Your task to perform on an android device: toggle translation in the chrome app Image 0: 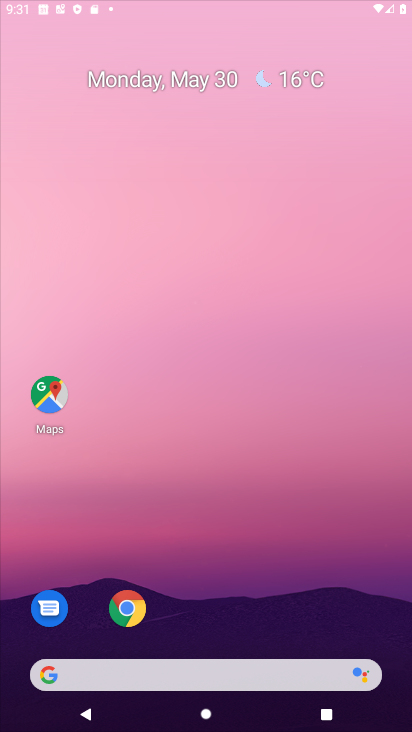
Step 0: click (135, 600)
Your task to perform on an android device: toggle translation in the chrome app Image 1: 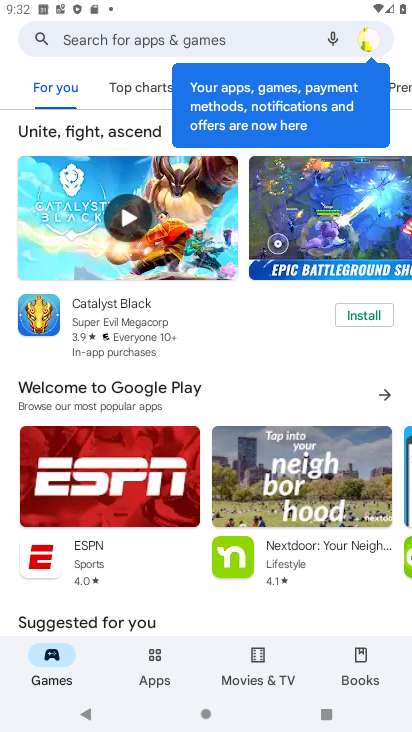
Step 1: click (225, 40)
Your task to perform on an android device: toggle translation in the chrome app Image 2: 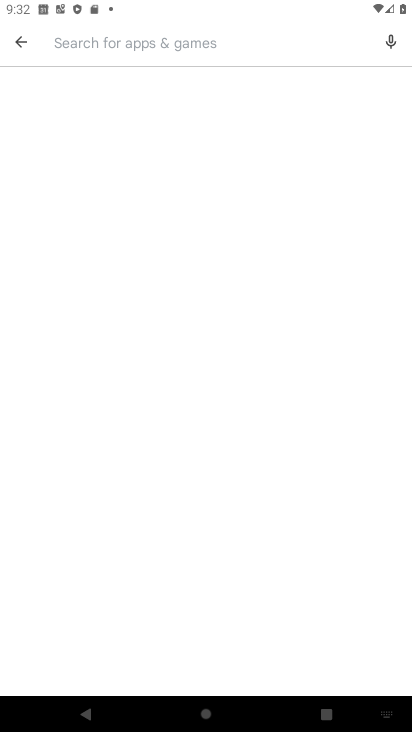
Step 2: press back button
Your task to perform on an android device: toggle translation in the chrome app Image 3: 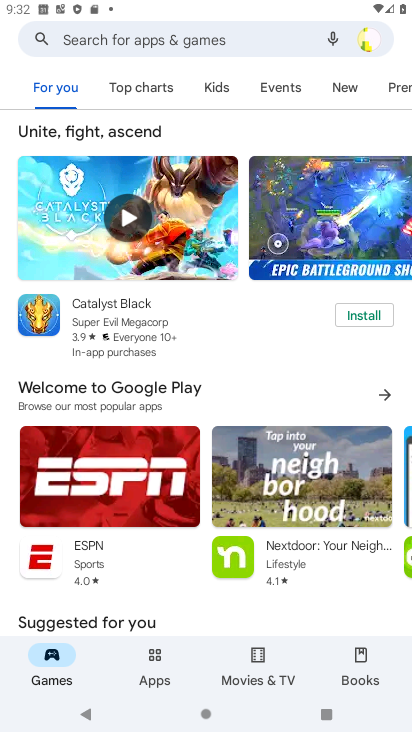
Step 3: click (203, 36)
Your task to perform on an android device: toggle translation in the chrome app Image 4: 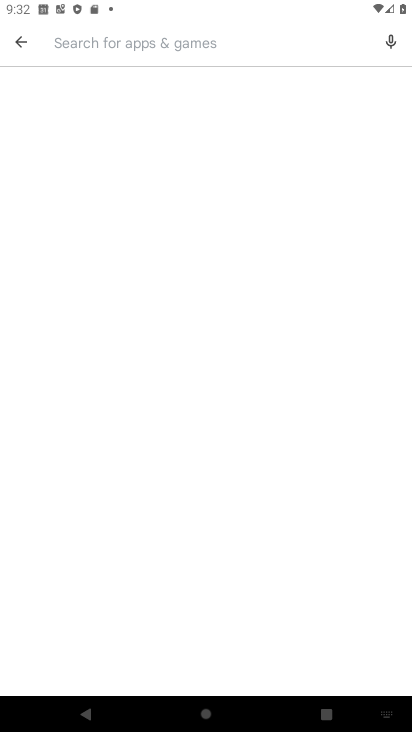
Step 4: press back button
Your task to perform on an android device: toggle translation in the chrome app Image 5: 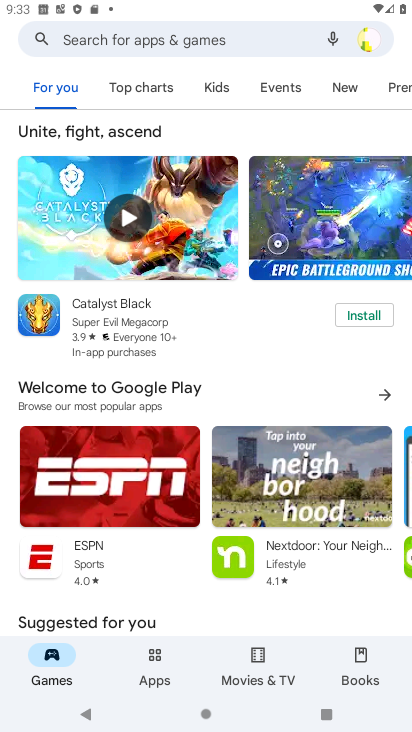
Step 5: press back button
Your task to perform on an android device: toggle translation in the chrome app Image 6: 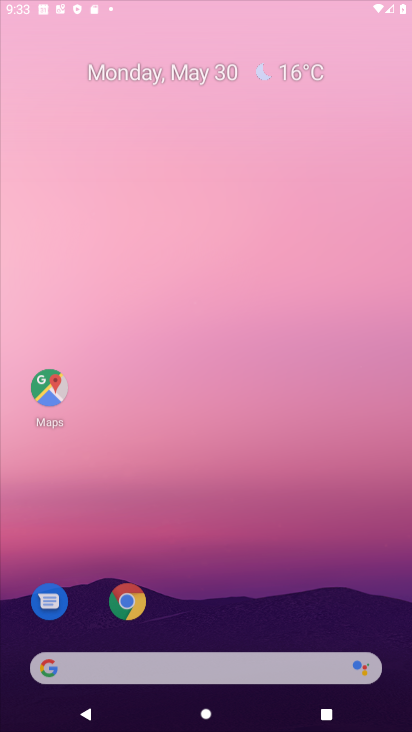
Step 6: press home button
Your task to perform on an android device: toggle translation in the chrome app Image 7: 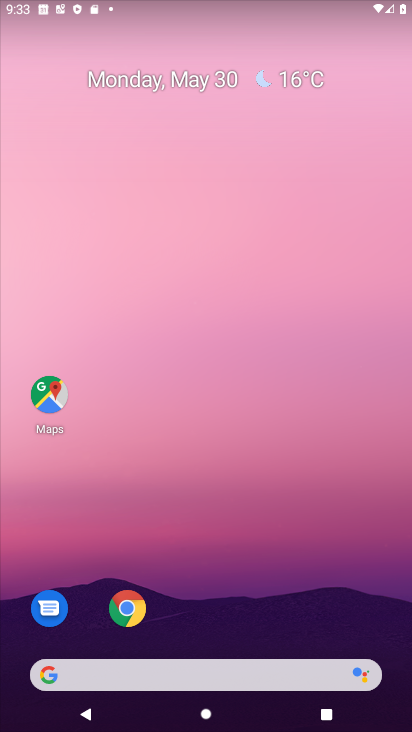
Step 7: drag from (390, 685) to (378, 186)
Your task to perform on an android device: toggle translation in the chrome app Image 8: 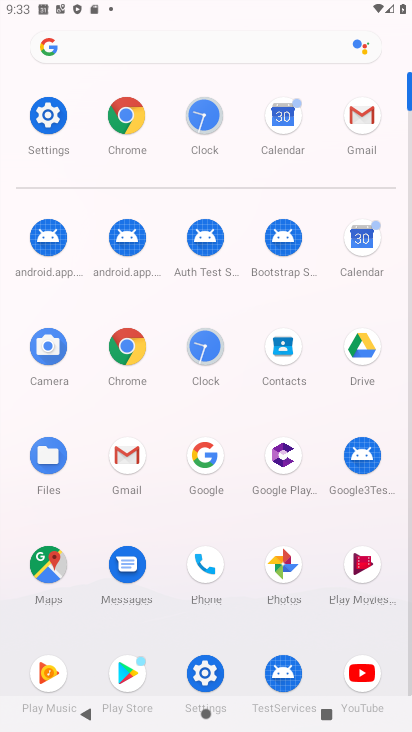
Step 8: click (46, 109)
Your task to perform on an android device: toggle translation in the chrome app Image 9: 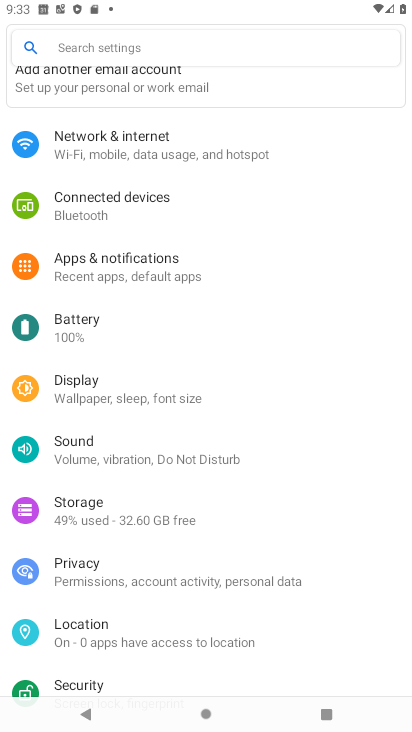
Step 9: drag from (266, 664) to (309, 387)
Your task to perform on an android device: toggle translation in the chrome app Image 10: 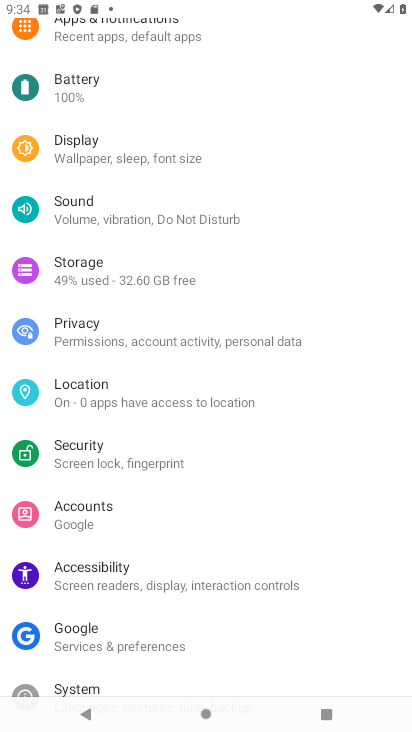
Step 10: drag from (240, 666) to (241, 380)
Your task to perform on an android device: toggle translation in the chrome app Image 11: 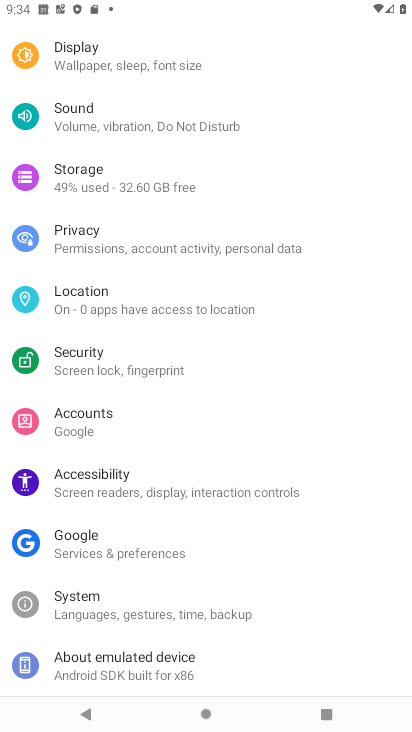
Step 11: press home button
Your task to perform on an android device: toggle translation in the chrome app Image 12: 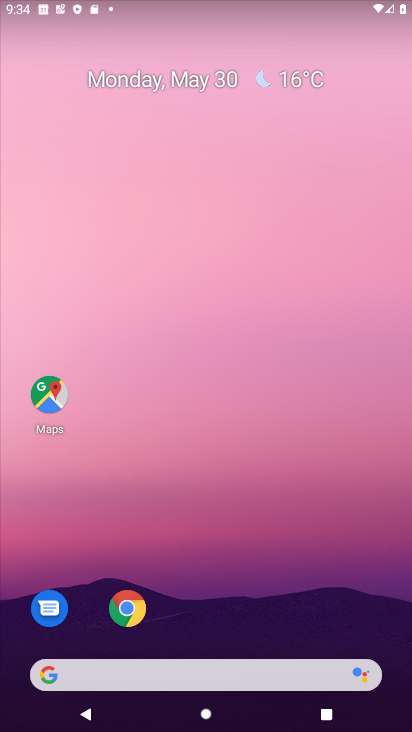
Step 12: click (124, 609)
Your task to perform on an android device: toggle translation in the chrome app Image 13: 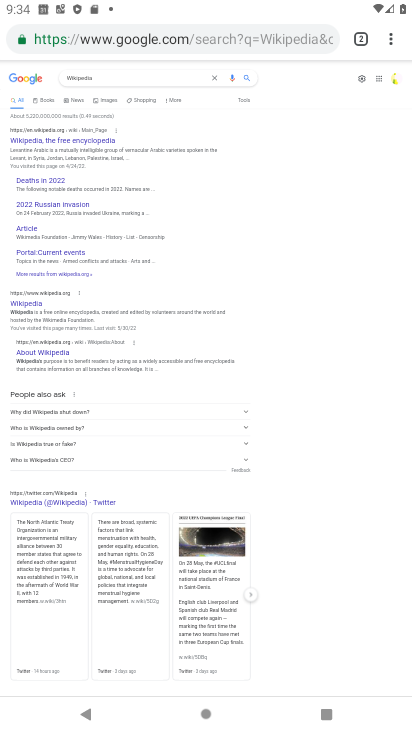
Step 13: click (390, 38)
Your task to perform on an android device: toggle translation in the chrome app Image 14: 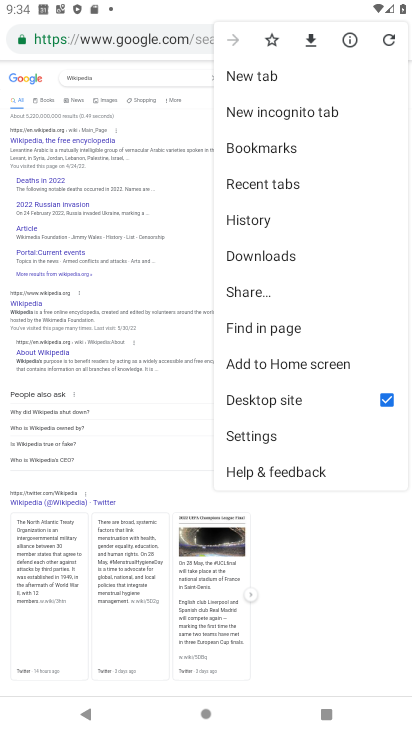
Step 14: click (250, 437)
Your task to perform on an android device: toggle translation in the chrome app Image 15: 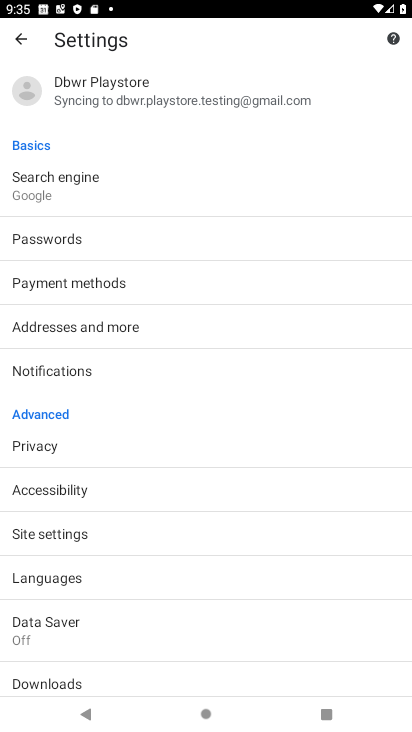
Step 15: click (126, 570)
Your task to perform on an android device: toggle translation in the chrome app Image 16: 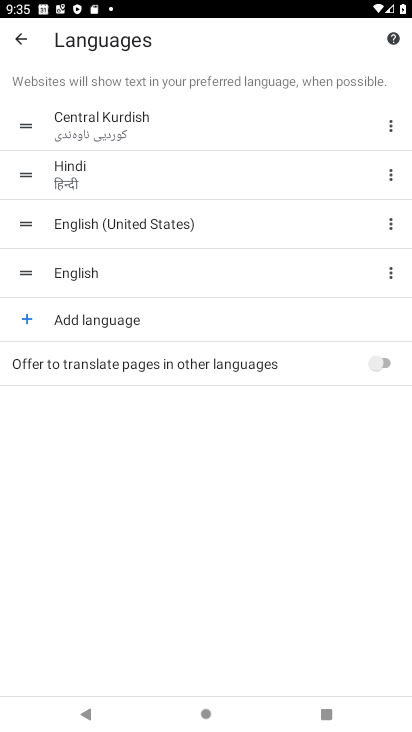
Step 16: click (390, 364)
Your task to perform on an android device: toggle translation in the chrome app Image 17: 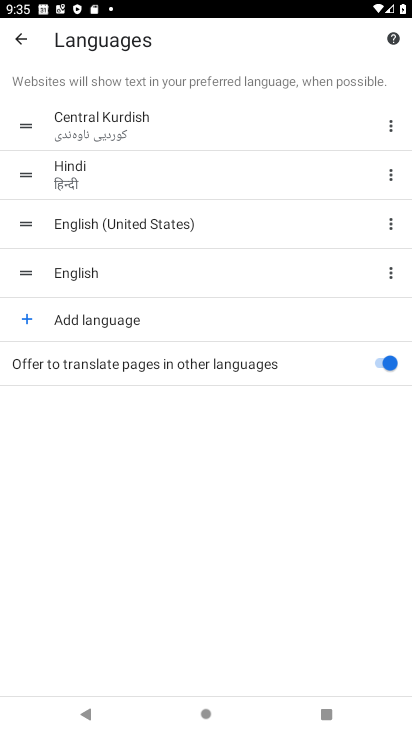
Step 17: task complete